Your task to perform on an android device: Open network settings Image 0: 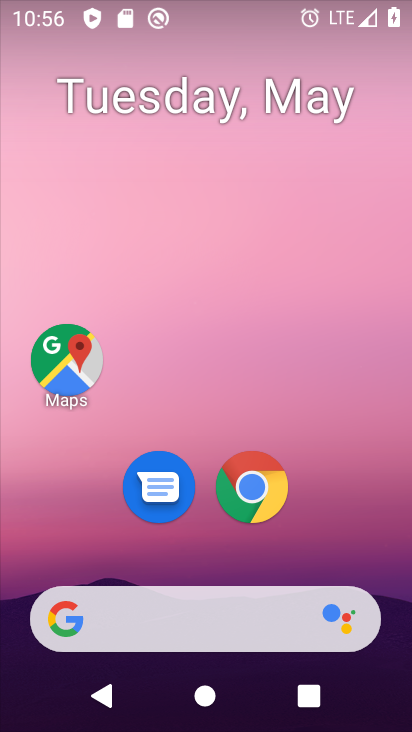
Step 0: drag from (209, 534) to (221, 87)
Your task to perform on an android device: Open network settings Image 1: 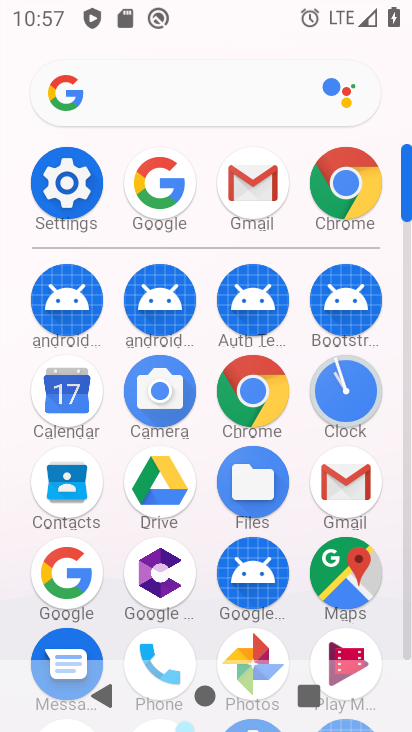
Step 1: click (92, 165)
Your task to perform on an android device: Open network settings Image 2: 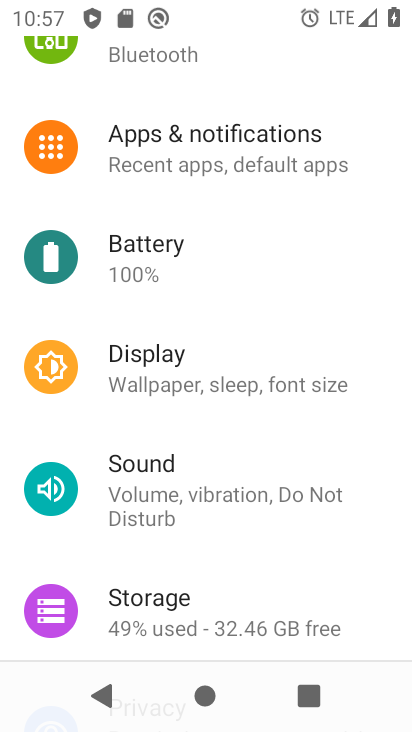
Step 2: drag from (151, 167) to (365, 634)
Your task to perform on an android device: Open network settings Image 3: 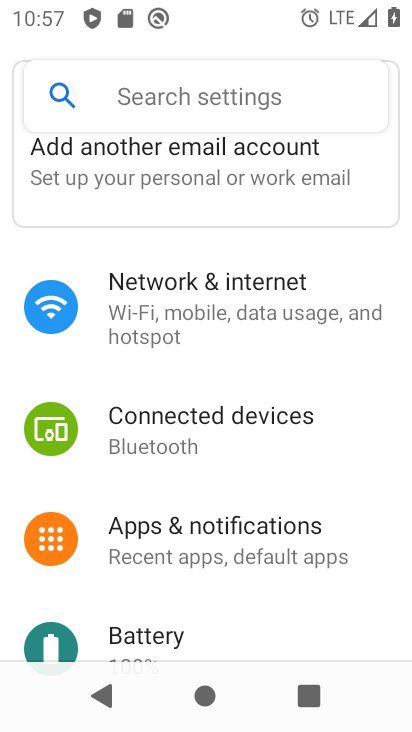
Step 3: click (187, 334)
Your task to perform on an android device: Open network settings Image 4: 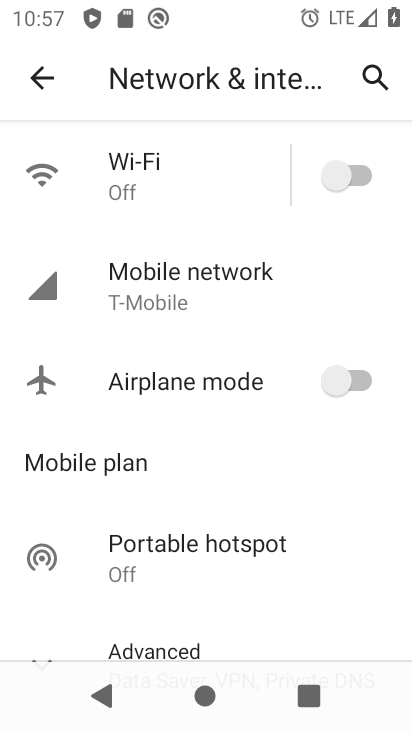
Step 4: task complete